Your task to perform on an android device: turn off translation in the chrome app Image 0: 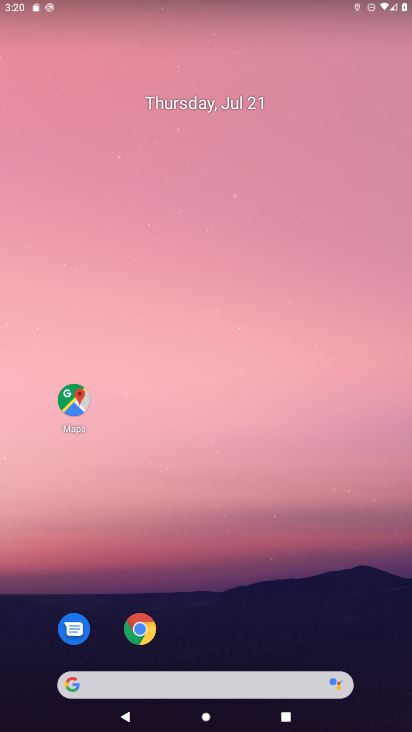
Step 0: click (139, 618)
Your task to perform on an android device: turn off translation in the chrome app Image 1: 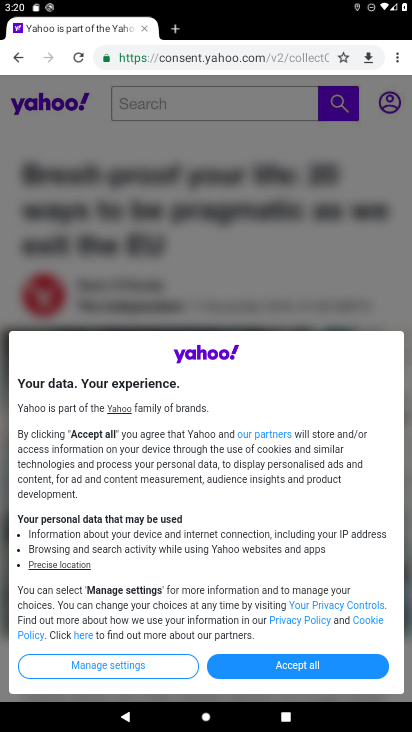
Step 1: click (398, 53)
Your task to perform on an android device: turn off translation in the chrome app Image 2: 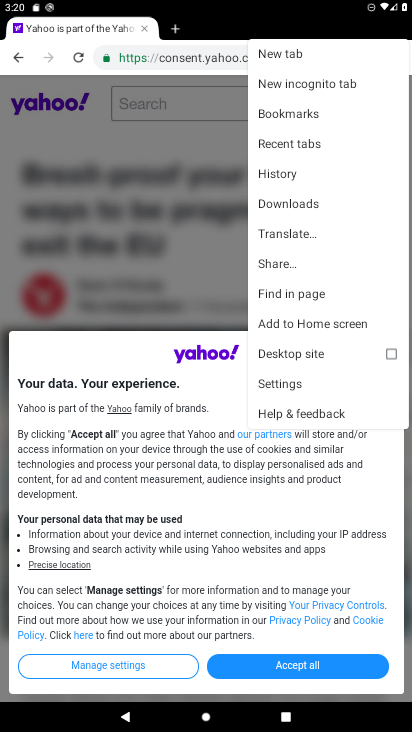
Step 2: click (285, 388)
Your task to perform on an android device: turn off translation in the chrome app Image 3: 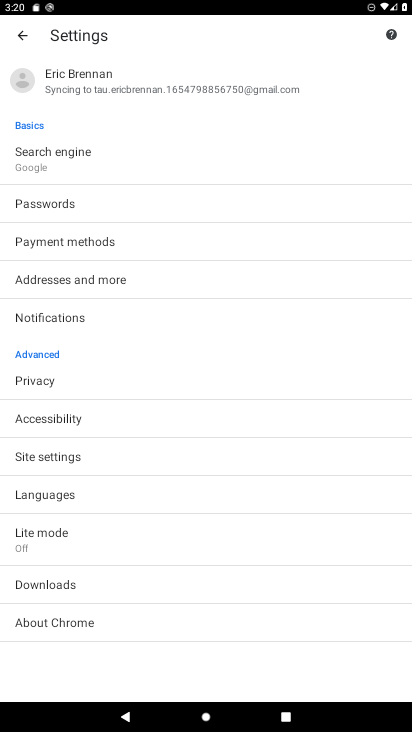
Step 3: click (47, 454)
Your task to perform on an android device: turn off translation in the chrome app Image 4: 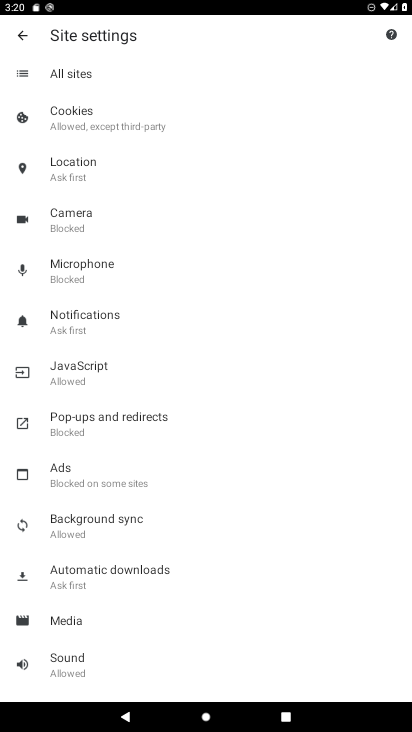
Step 4: click (23, 29)
Your task to perform on an android device: turn off translation in the chrome app Image 5: 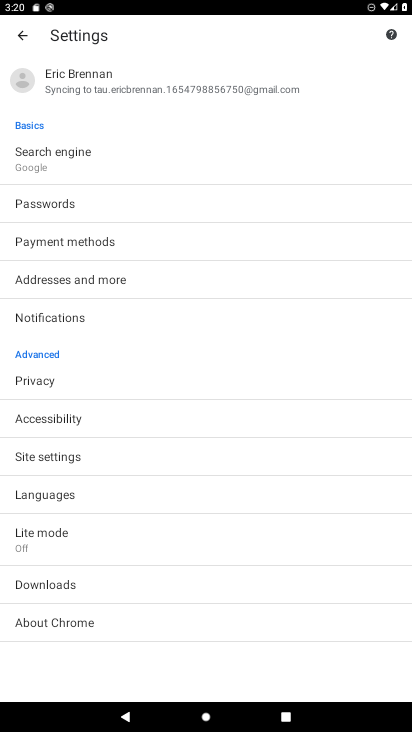
Step 5: click (66, 490)
Your task to perform on an android device: turn off translation in the chrome app Image 6: 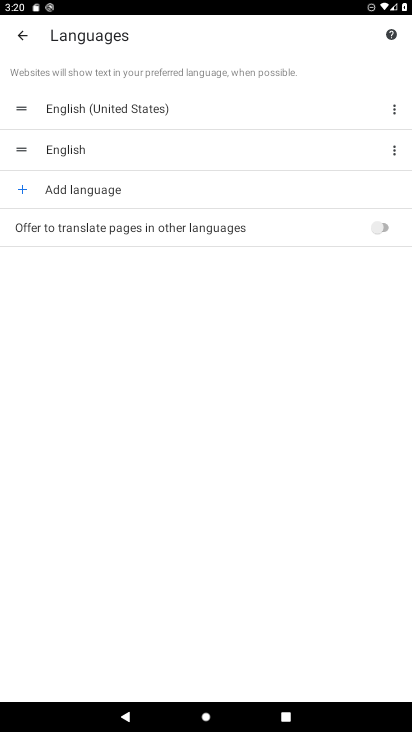
Step 6: task complete